Your task to perform on an android device: change alarm snooze length Image 0: 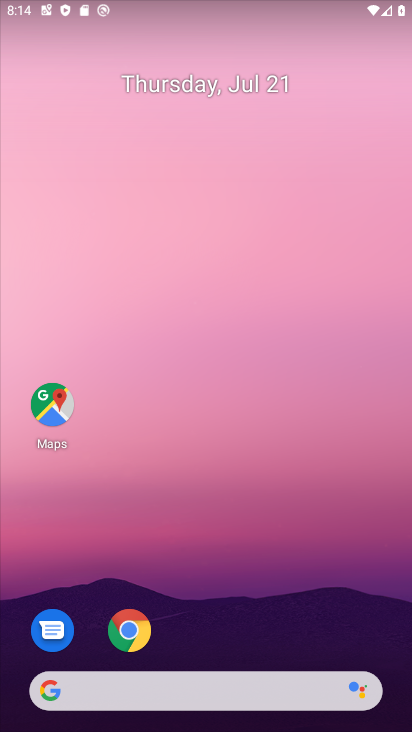
Step 0: drag from (242, 614) to (328, 10)
Your task to perform on an android device: change alarm snooze length Image 1: 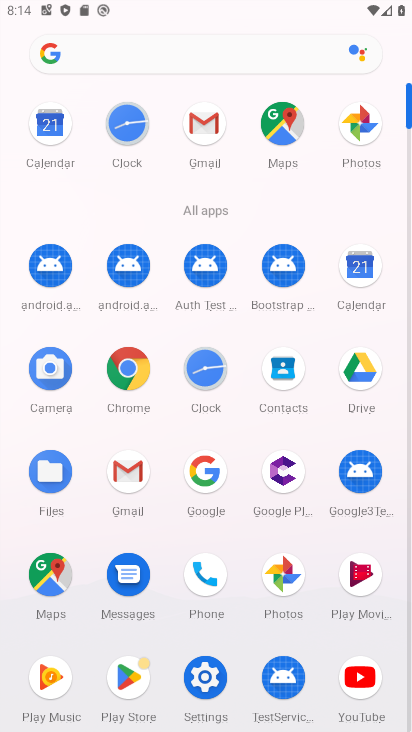
Step 1: click (125, 109)
Your task to perform on an android device: change alarm snooze length Image 2: 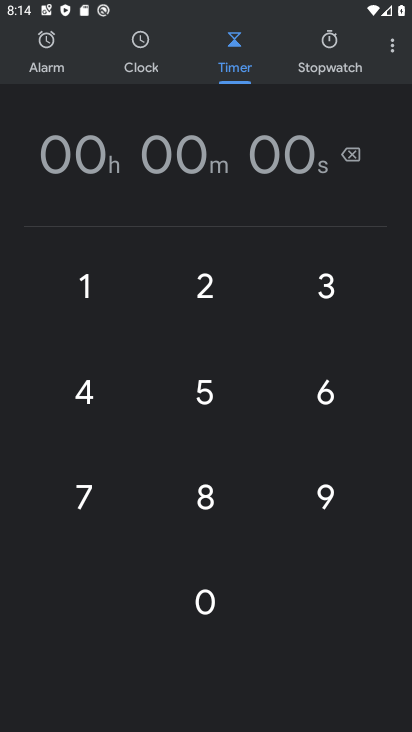
Step 2: click (382, 47)
Your task to perform on an android device: change alarm snooze length Image 3: 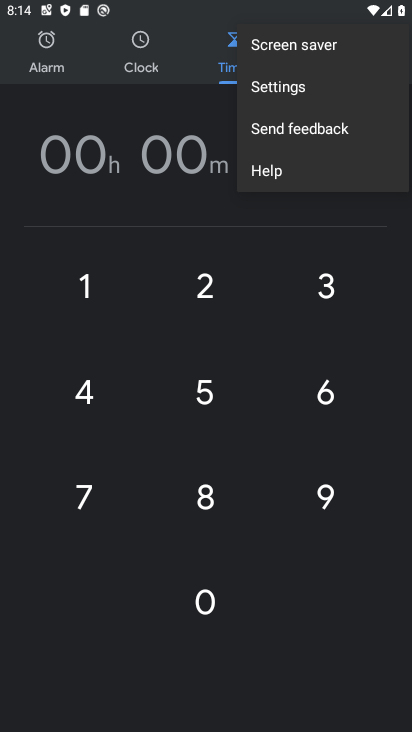
Step 3: click (331, 90)
Your task to perform on an android device: change alarm snooze length Image 4: 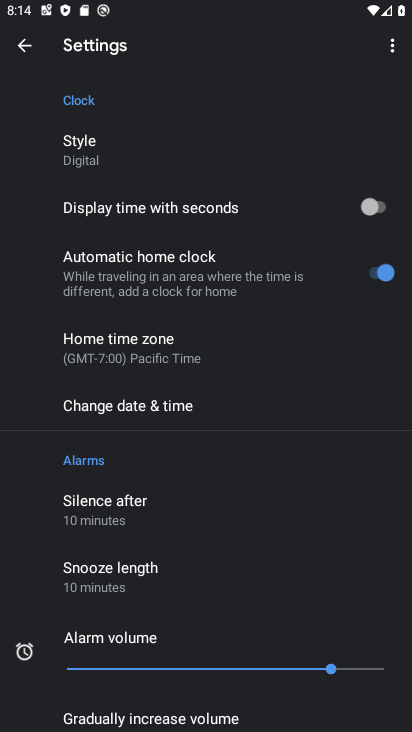
Step 4: click (192, 573)
Your task to perform on an android device: change alarm snooze length Image 5: 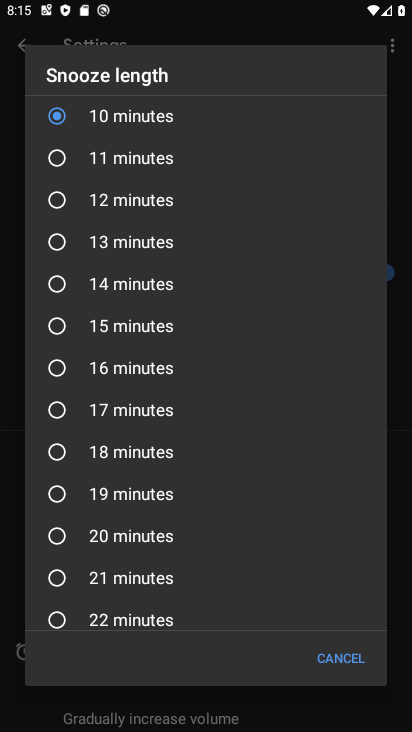
Step 5: click (112, 581)
Your task to perform on an android device: change alarm snooze length Image 6: 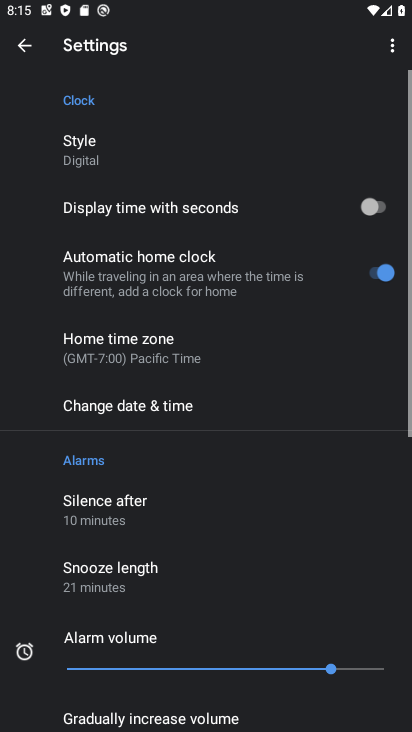
Step 6: task complete